Your task to perform on an android device: toggle translation in the chrome app Image 0: 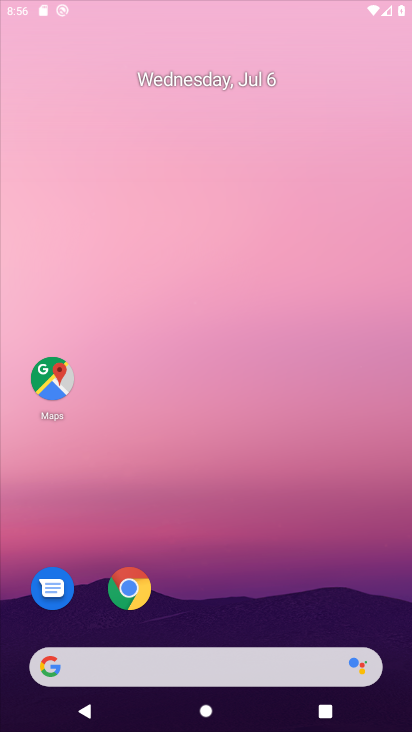
Step 0: drag from (214, 600) to (183, 6)
Your task to perform on an android device: toggle translation in the chrome app Image 1: 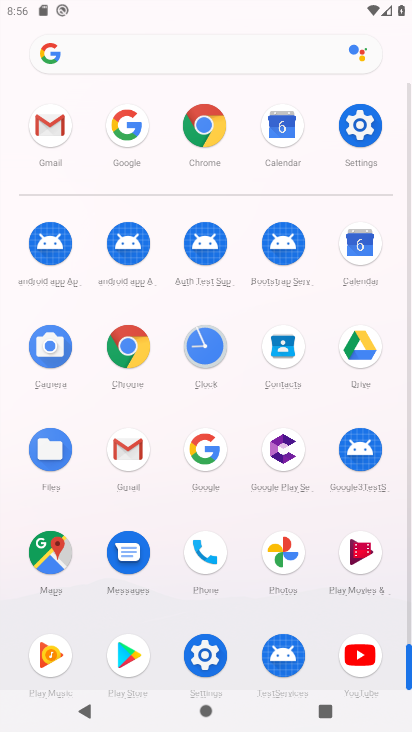
Step 1: click (201, 131)
Your task to perform on an android device: toggle translation in the chrome app Image 2: 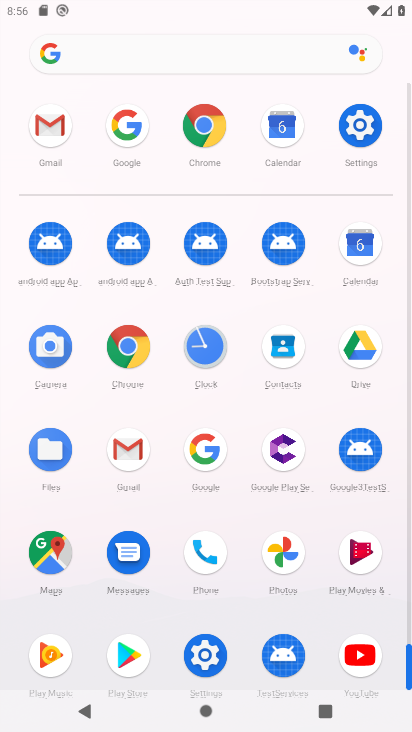
Step 2: click (201, 131)
Your task to perform on an android device: toggle translation in the chrome app Image 3: 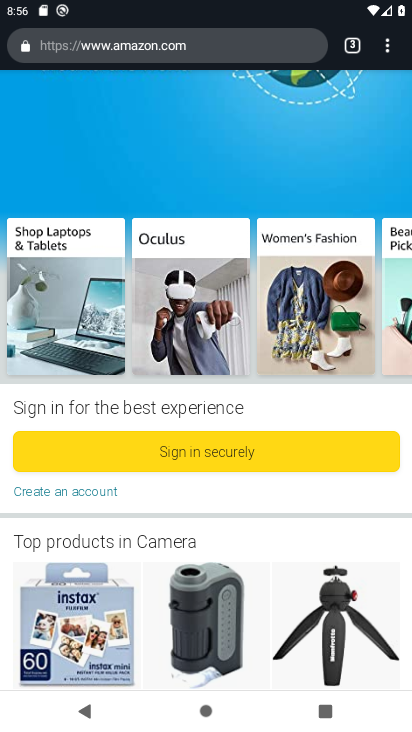
Step 3: drag from (203, 506) to (257, 175)
Your task to perform on an android device: toggle translation in the chrome app Image 4: 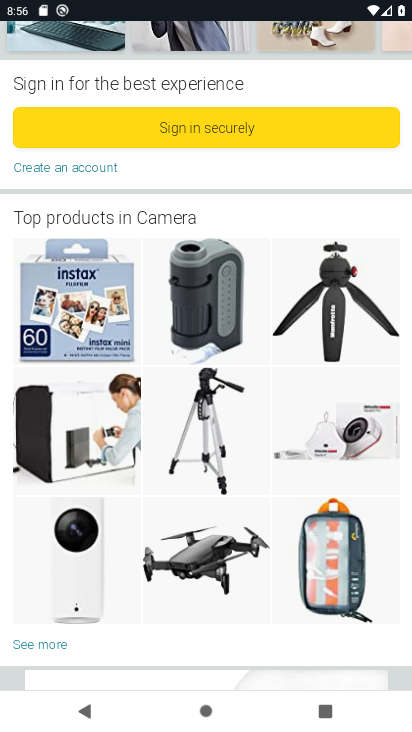
Step 4: drag from (231, 578) to (223, 354)
Your task to perform on an android device: toggle translation in the chrome app Image 5: 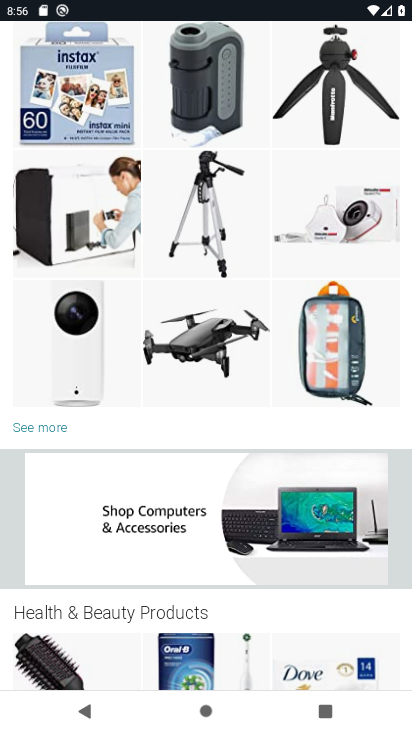
Step 5: drag from (319, 205) to (309, 725)
Your task to perform on an android device: toggle translation in the chrome app Image 6: 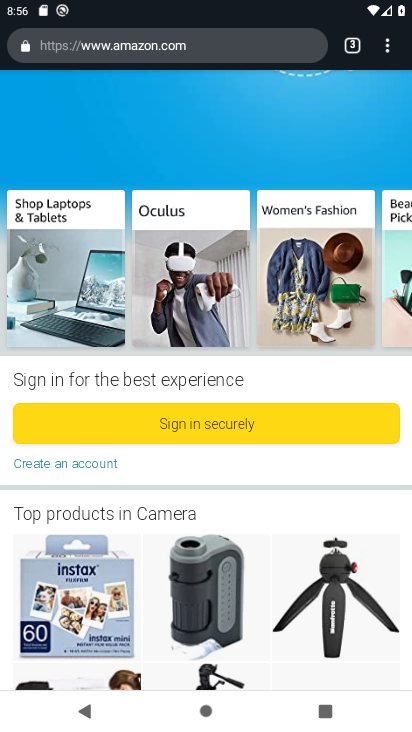
Step 6: click (390, 38)
Your task to perform on an android device: toggle translation in the chrome app Image 7: 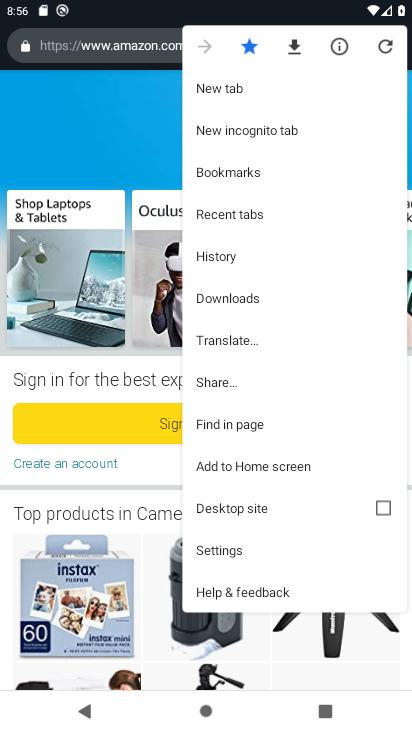
Step 7: click (218, 543)
Your task to perform on an android device: toggle translation in the chrome app Image 8: 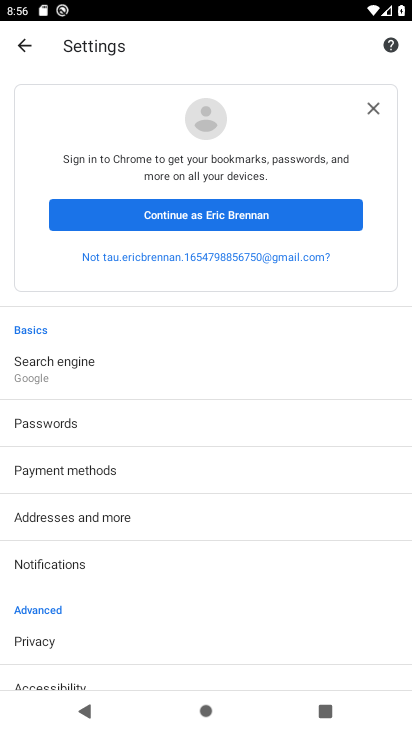
Step 8: drag from (192, 580) to (291, 186)
Your task to perform on an android device: toggle translation in the chrome app Image 9: 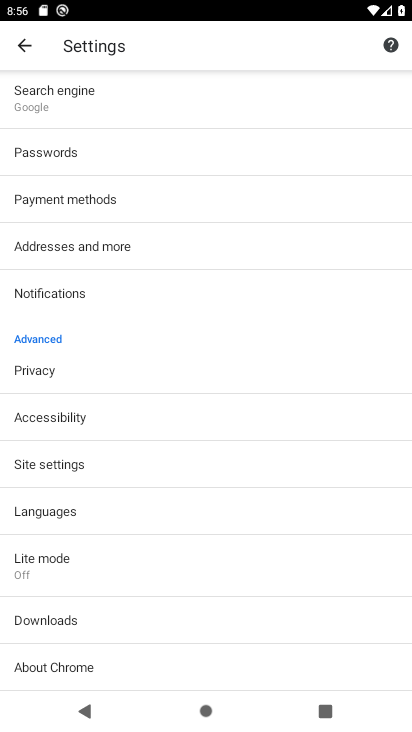
Step 9: click (80, 503)
Your task to perform on an android device: toggle translation in the chrome app Image 10: 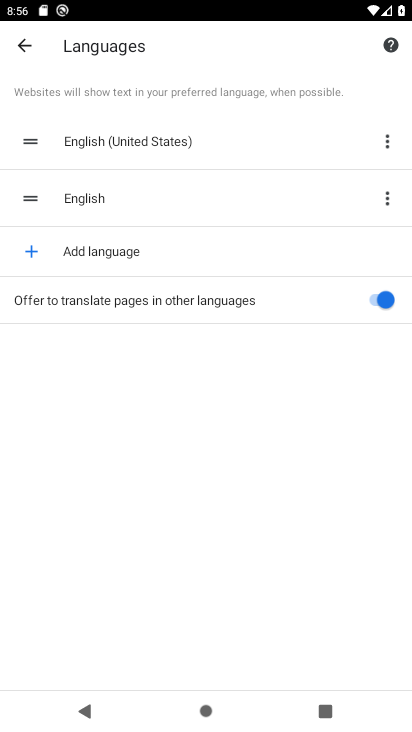
Step 10: click (360, 292)
Your task to perform on an android device: toggle translation in the chrome app Image 11: 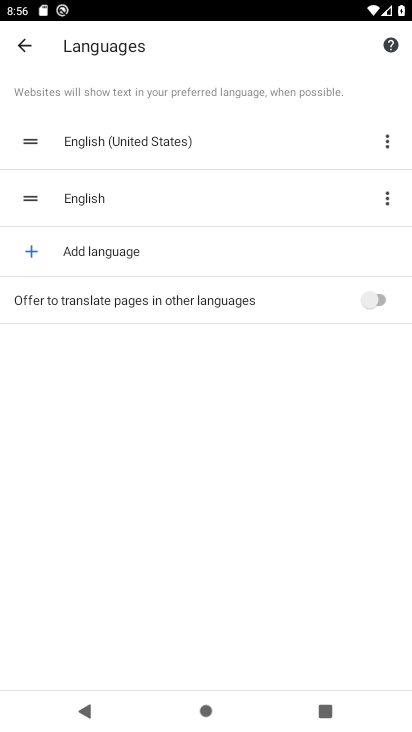
Step 11: task complete